Your task to perform on an android device: toggle data saver in the chrome app Image 0: 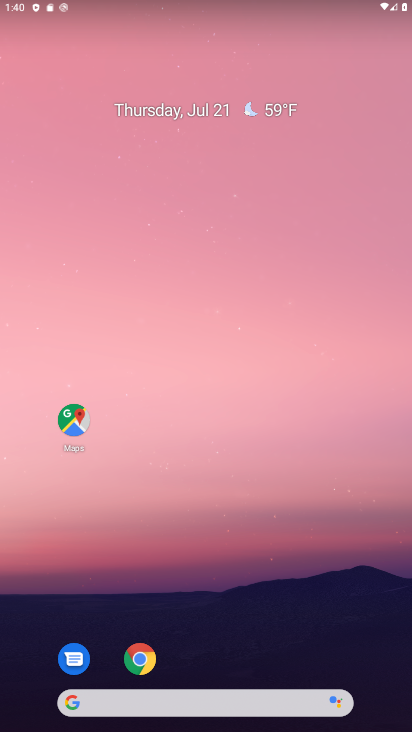
Step 0: click (146, 659)
Your task to perform on an android device: toggle data saver in the chrome app Image 1: 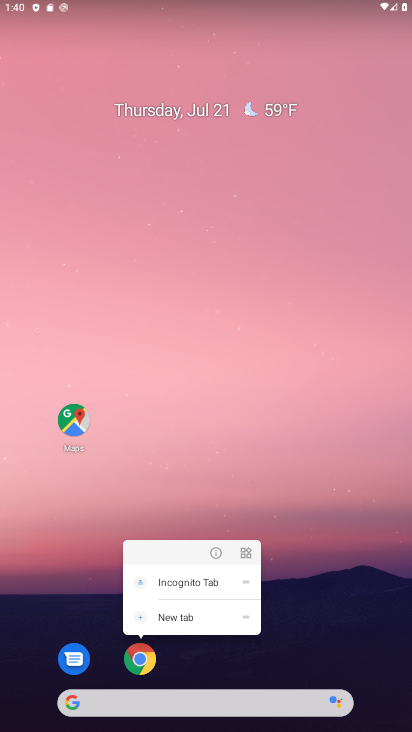
Step 1: click (146, 659)
Your task to perform on an android device: toggle data saver in the chrome app Image 2: 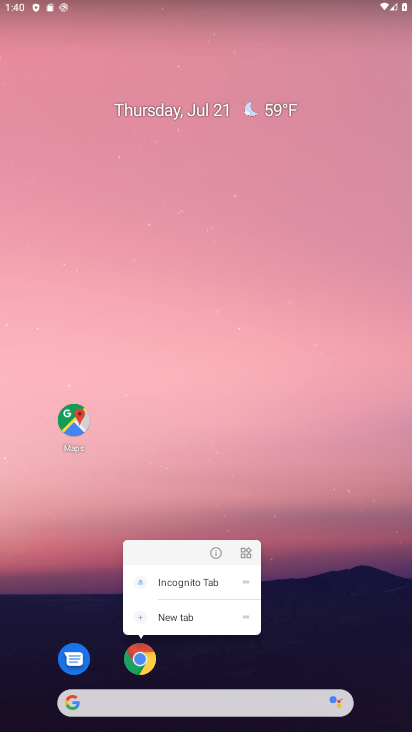
Step 2: click (146, 659)
Your task to perform on an android device: toggle data saver in the chrome app Image 3: 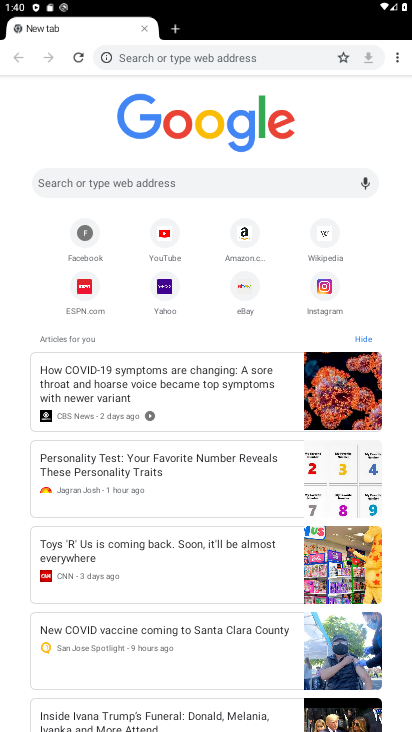
Step 3: drag from (394, 51) to (347, 267)
Your task to perform on an android device: toggle data saver in the chrome app Image 4: 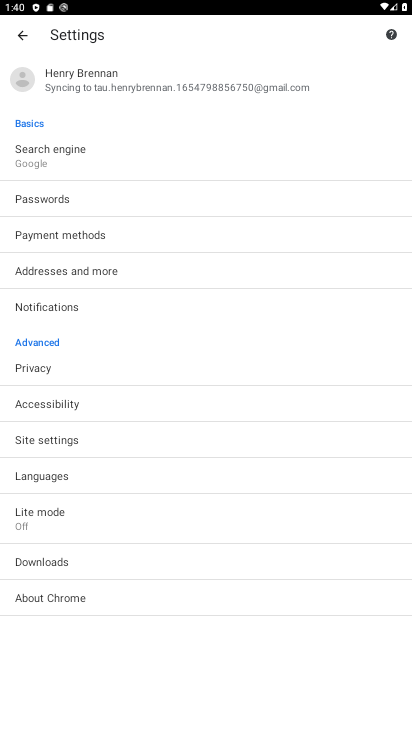
Step 4: click (84, 515)
Your task to perform on an android device: toggle data saver in the chrome app Image 5: 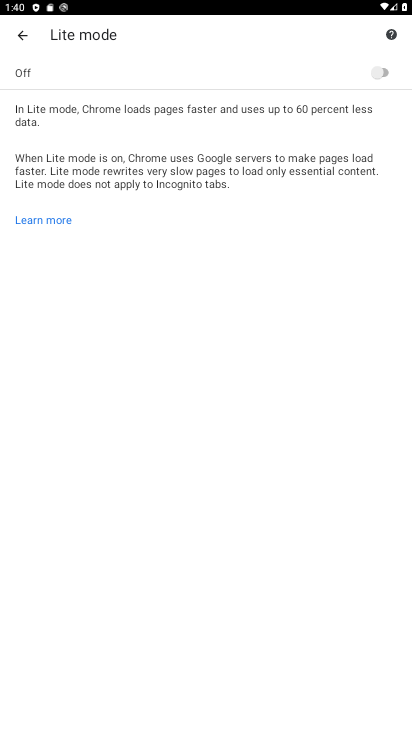
Step 5: click (385, 74)
Your task to perform on an android device: toggle data saver in the chrome app Image 6: 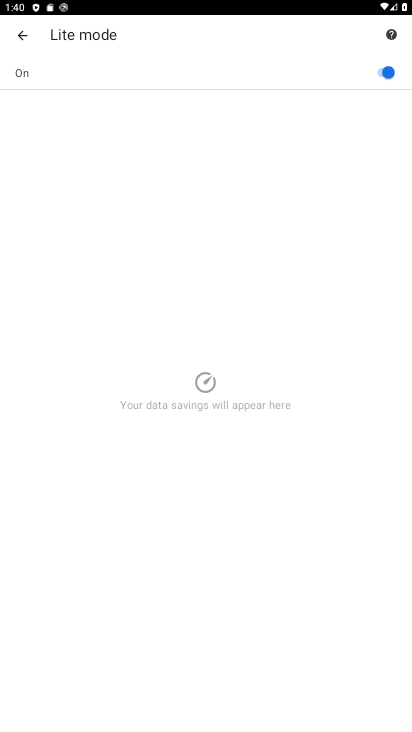
Step 6: task complete